Your task to perform on an android device: change your default location settings in chrome Image 0: 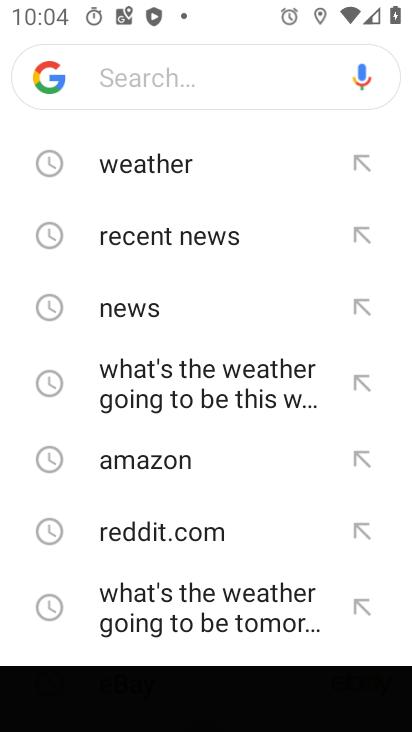
Step 0: drag from (290, 443) to (175, 22)
Your task to perform on an android device: change your default location settings in chrome Image 1: 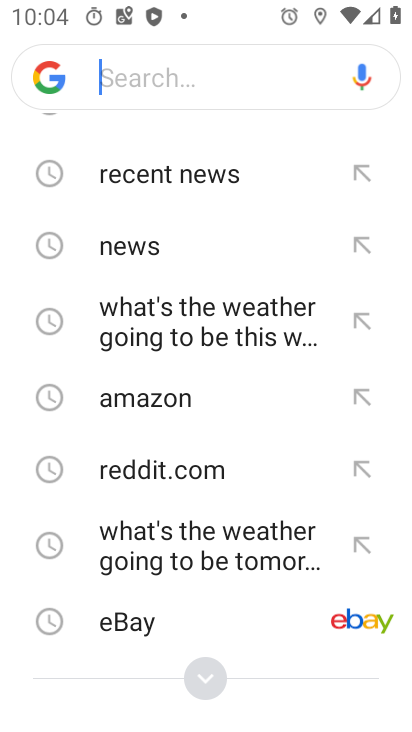
Step 1: press home button
Your task to perform on an android device: change your default location settings in chrome Image 2: 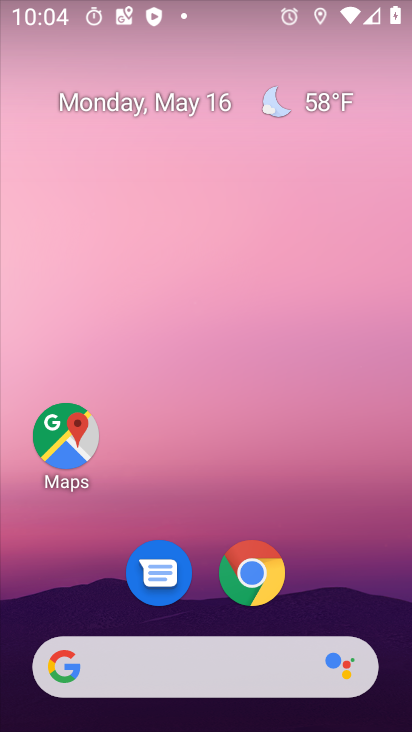
Step 2: drag from (332, 574) to (141, 124)
Your task to perform on an android device: change your default location settings in chrome Image 3: 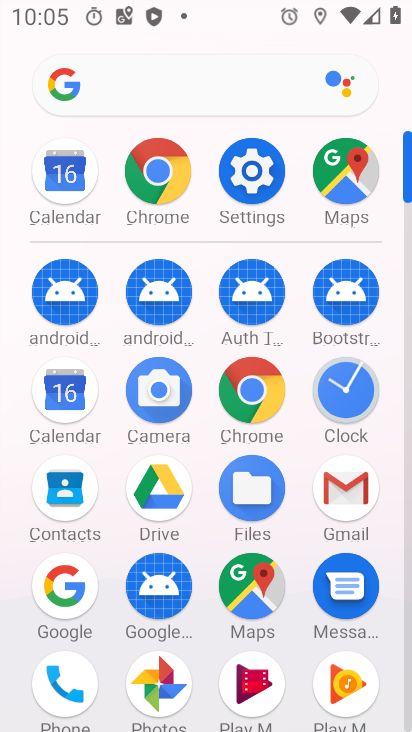
Step 3: click (156, 173)
Your task to perform on an android device: change your default location settings in chrome Image 4: 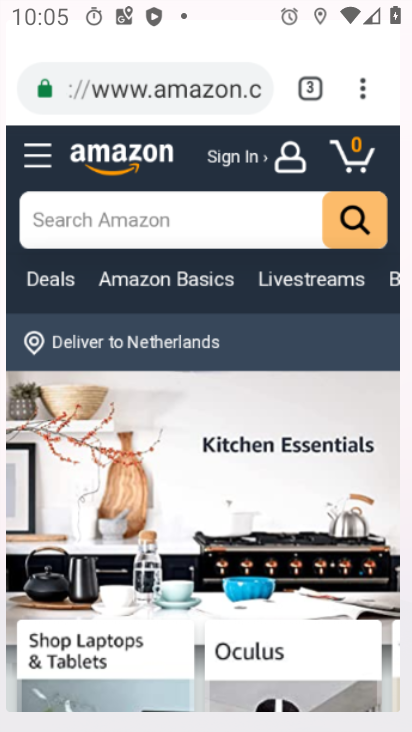
Step 4: click (156, 173)
Your task to perform on an android device: change your default location settings in chrome Image 5: 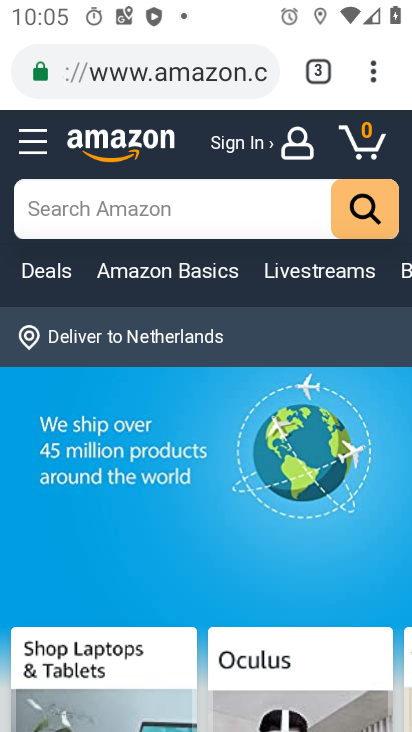
Step 5: drag from (379, 60) to (110, 560)
Your task to perform on an android device: change your default location settings in chrome Image 6: 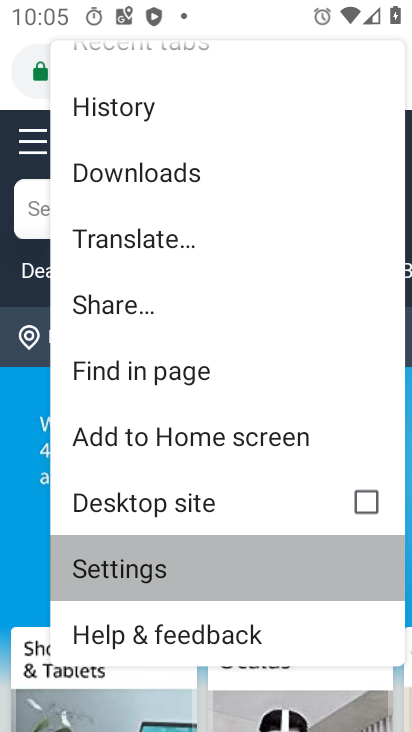
Step 6: click (136, 569)
Your task to perform on an android device: change your default location settings in chrome Image 7: 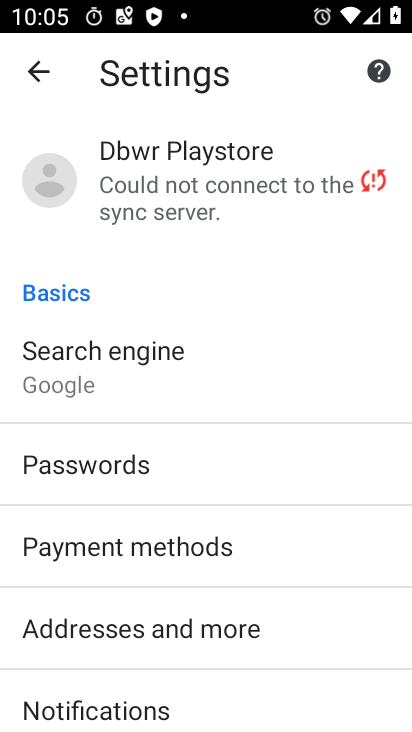
Step 7: drag from (188, 636) to (105, 99)
Your task to perform on an android device: change your default location settings in chrome Image 8: 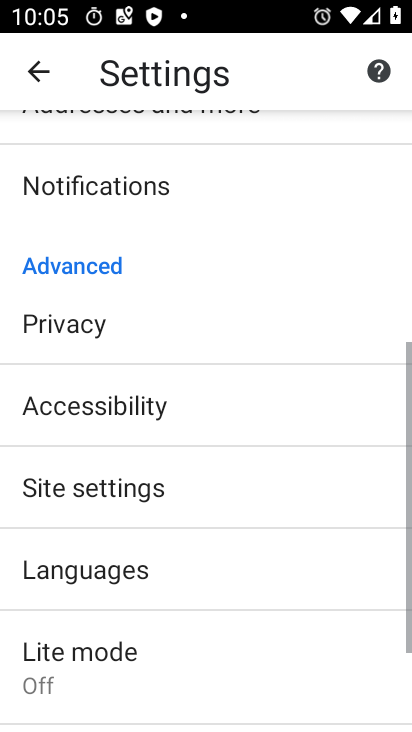
Step 8: drag from (77, 397) to (73, 46)
Your task to perform on an android device: change your default location settings in chrome Image 9: 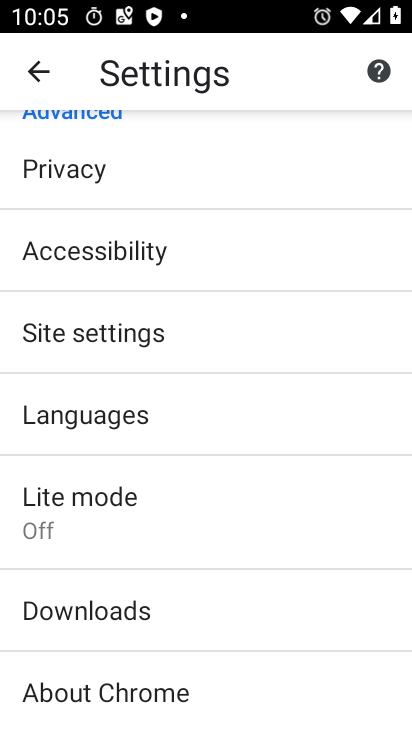
Step 9: click (64, 338)
Your task to perform on an android device: change your default location settings in chrome Image 10: 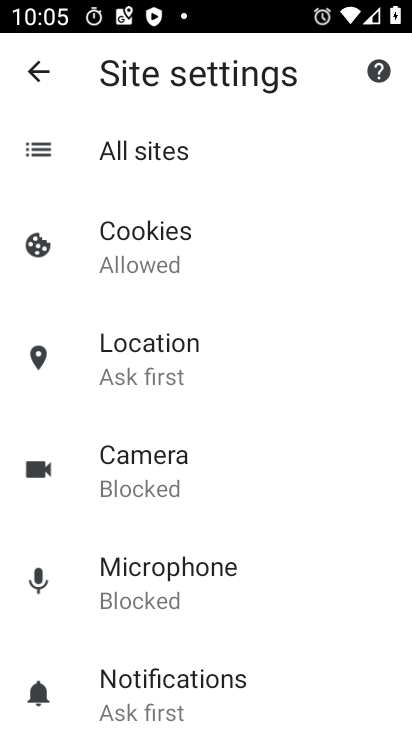
Step 10: click (143, 360)
Your task to perform on an android device: change your default location settings in chrome Image 11: 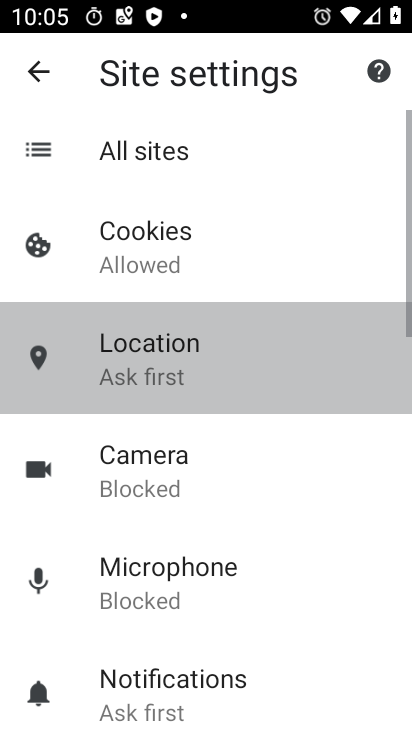
Step 11: click (143, 360)
Your task to perform on an android device: change your default location settings in chrome Image 12: 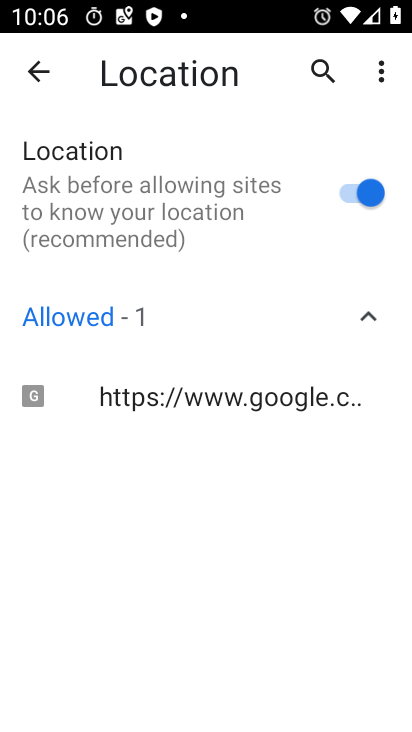
Step 12: click (360, 199)
Your task to perform on an android device: change your default location settings in chrome Image 13: 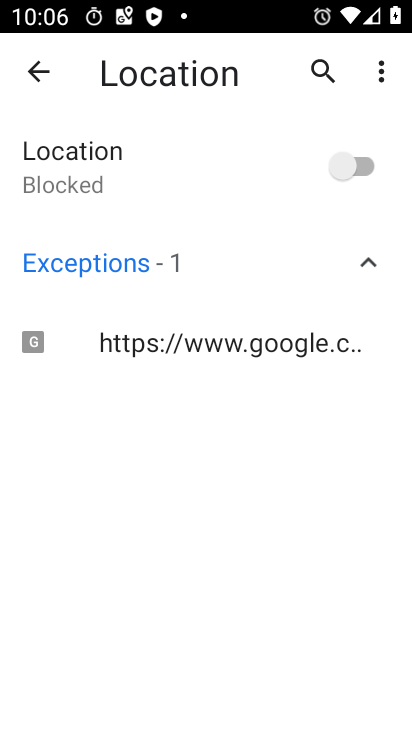
Step 13: task complete